Your task to perform on an android device: search for starred emails in the gmail app Image 0: 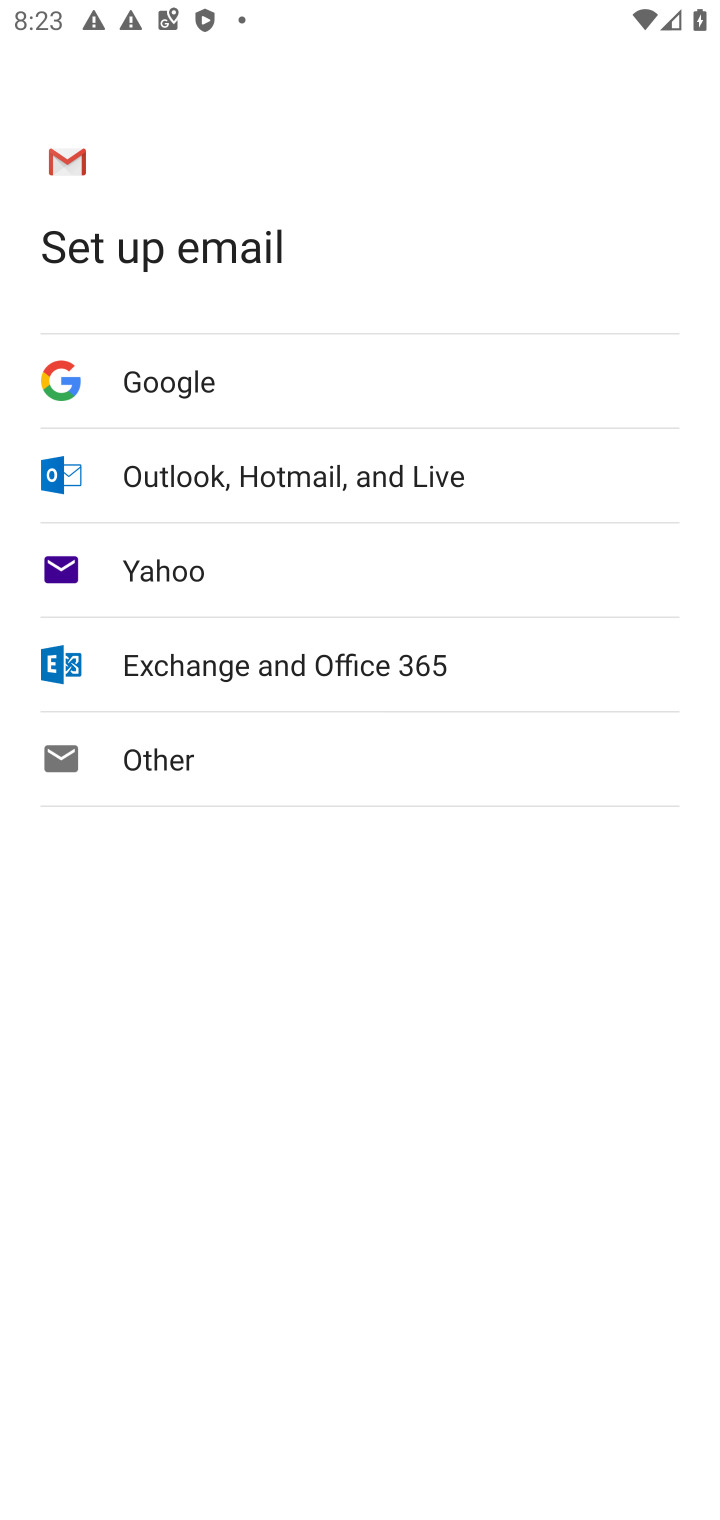
Step 0: press back button
Your task to perform on an android device: search for starred emails in the gmail app Image 1: 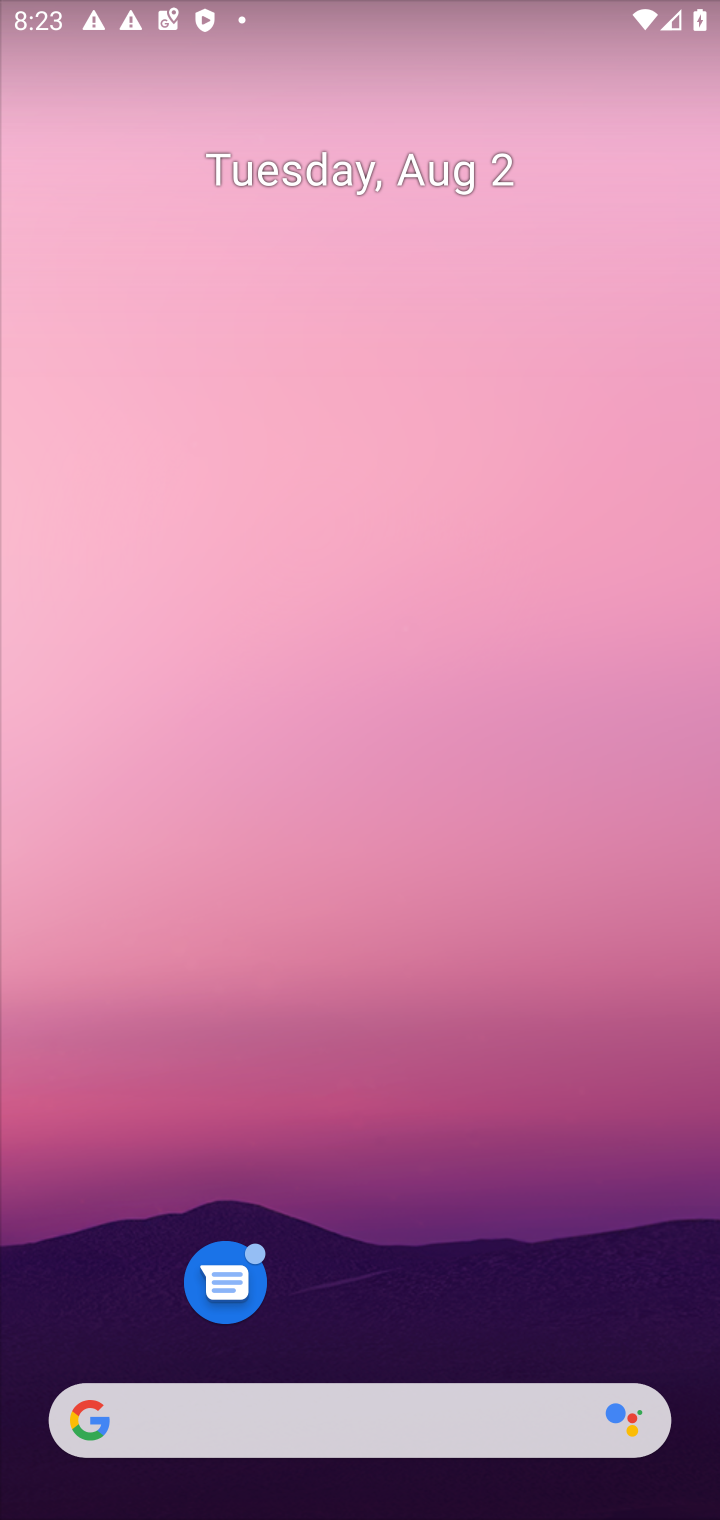
Step 1: drag from (431, 1335) to (150, 25)
Your task to perform on an android device: search for starred emails in the gmail app Image 2: 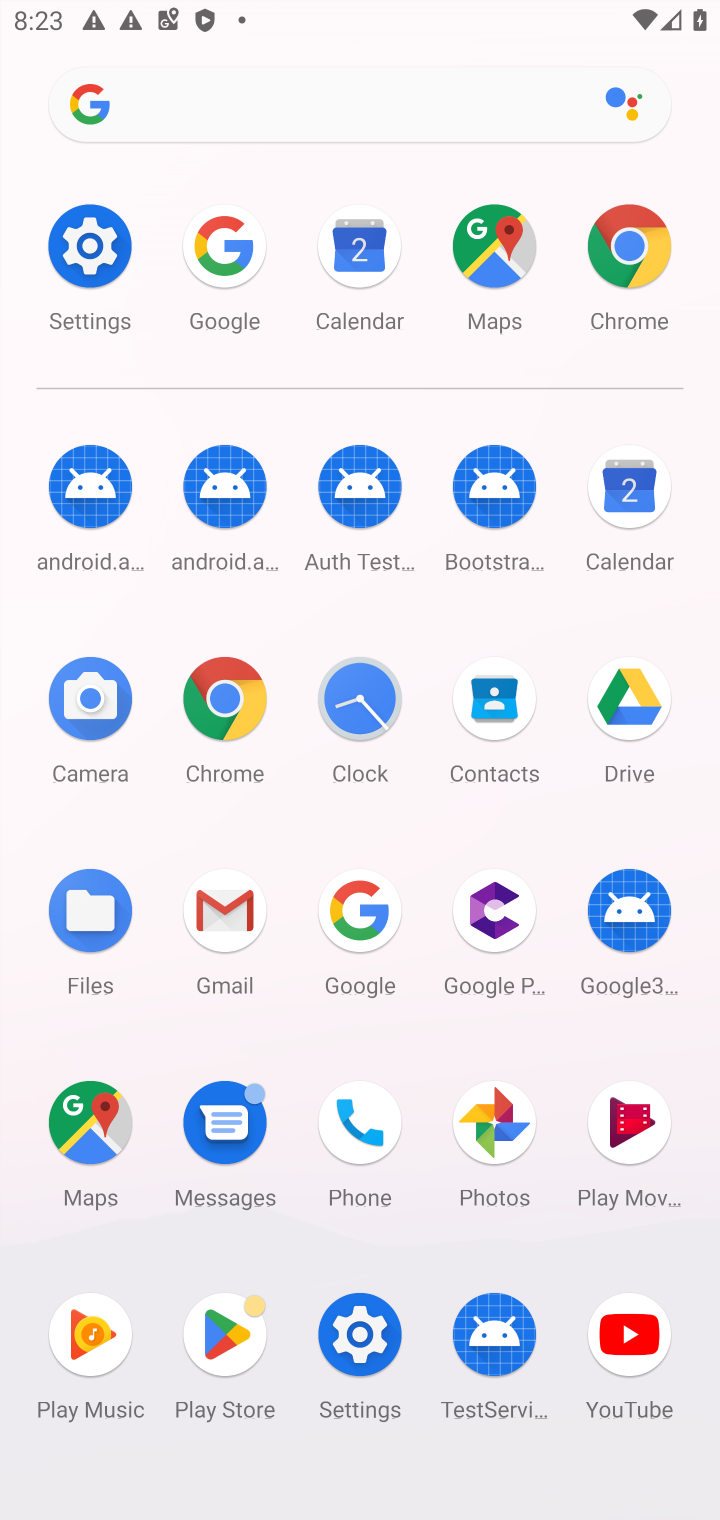
Step 2: click (177, 904)
Your task to perform on an android device: search for starred emails in the gmail app Image 3: 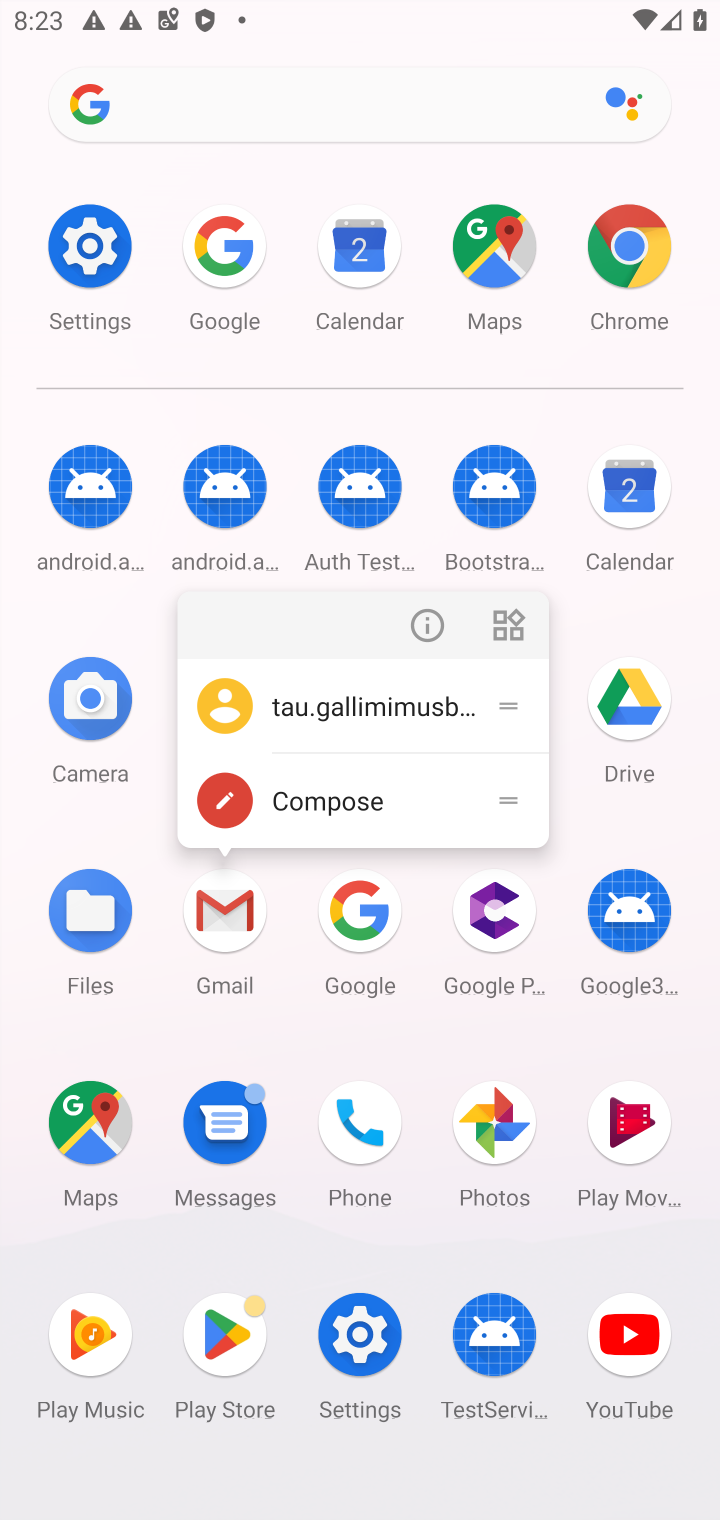
Step 3: click (199, 922)
Your task to perform on an android device: search for starred emails in the gmail app Image 4: 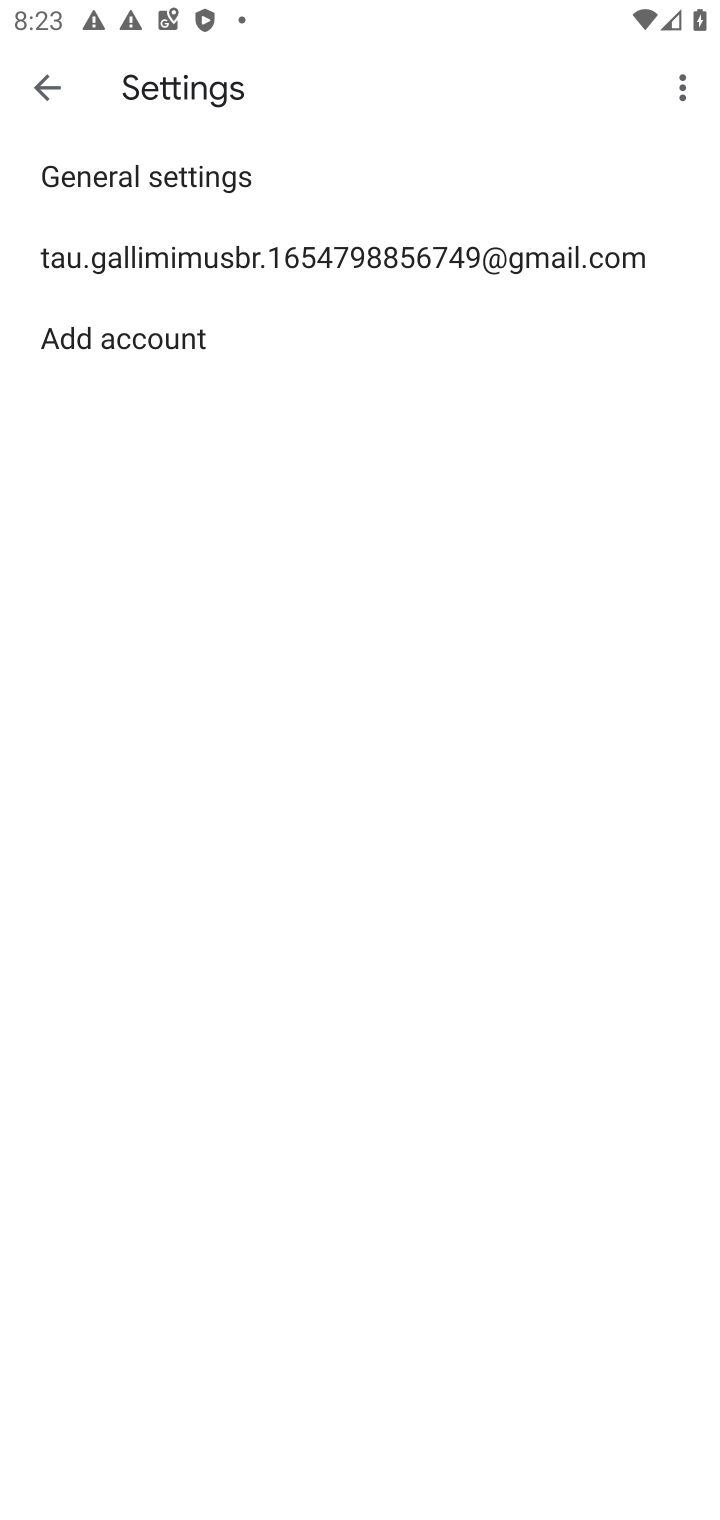
Step 4: click (45, 81)
Your task to perform on an android device: search for starred emails in the gmail app Image 5: 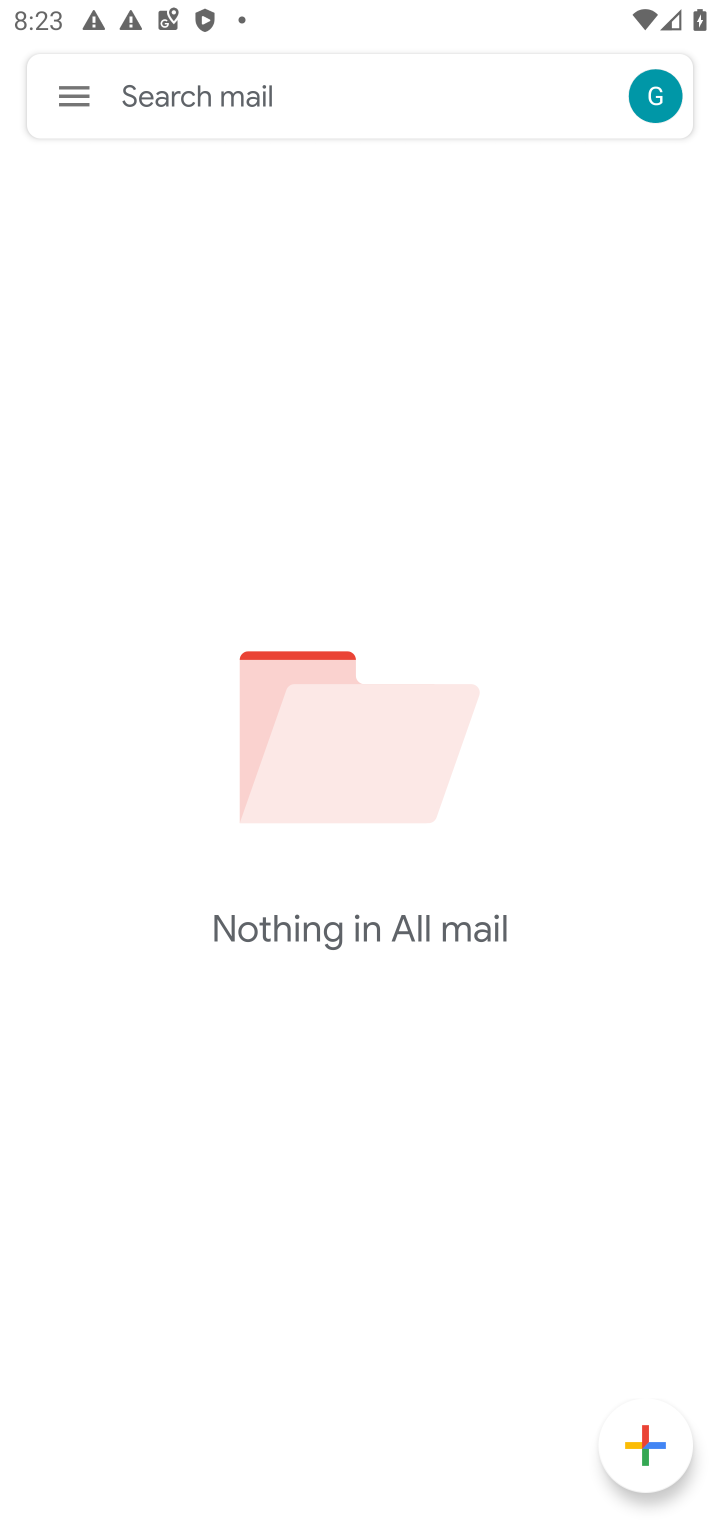
Step 5: click (39, 93)
Your task to perform on an android device: search for starred emails in the gmail app Image 6: 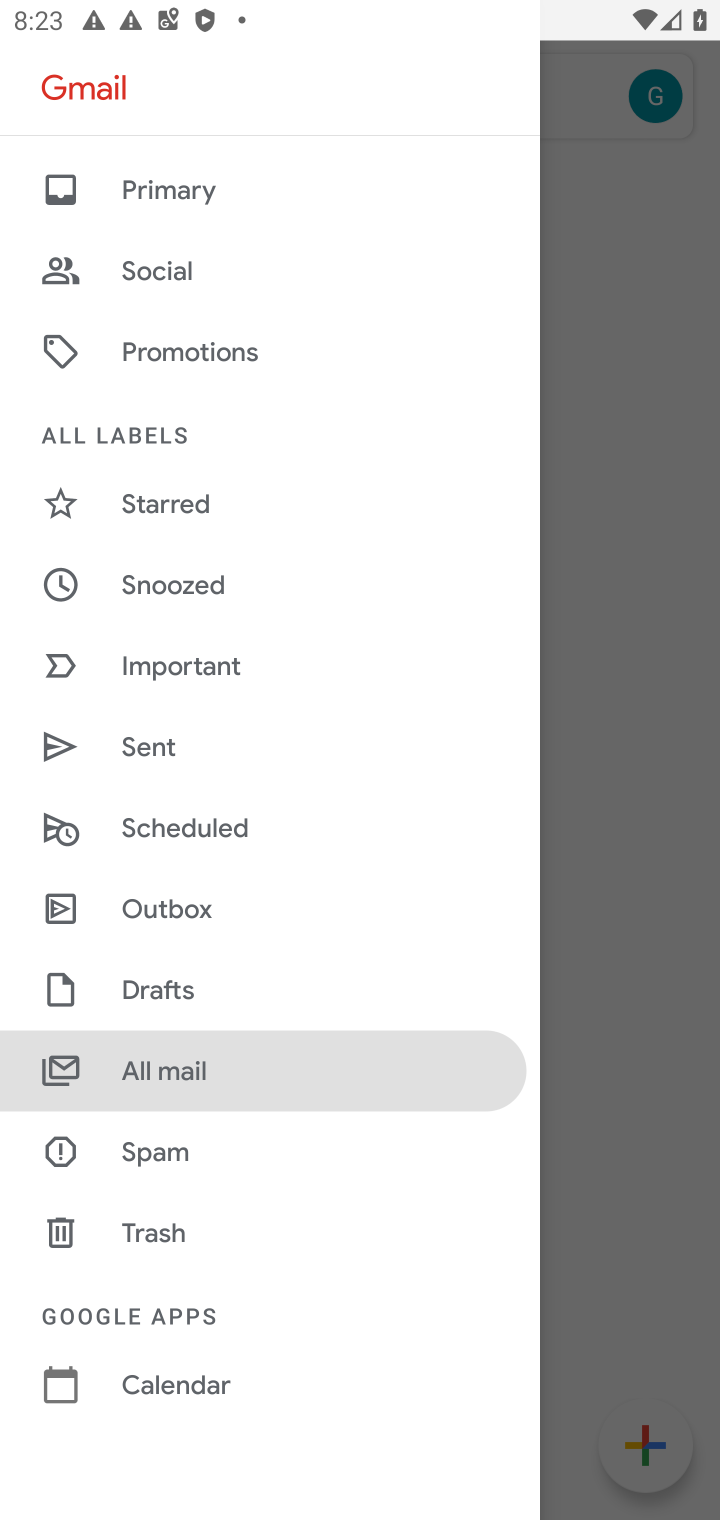
Step 6: click (116, 503)
Your task to perform on an android device: search for starred emails in the gmail app Image 7: 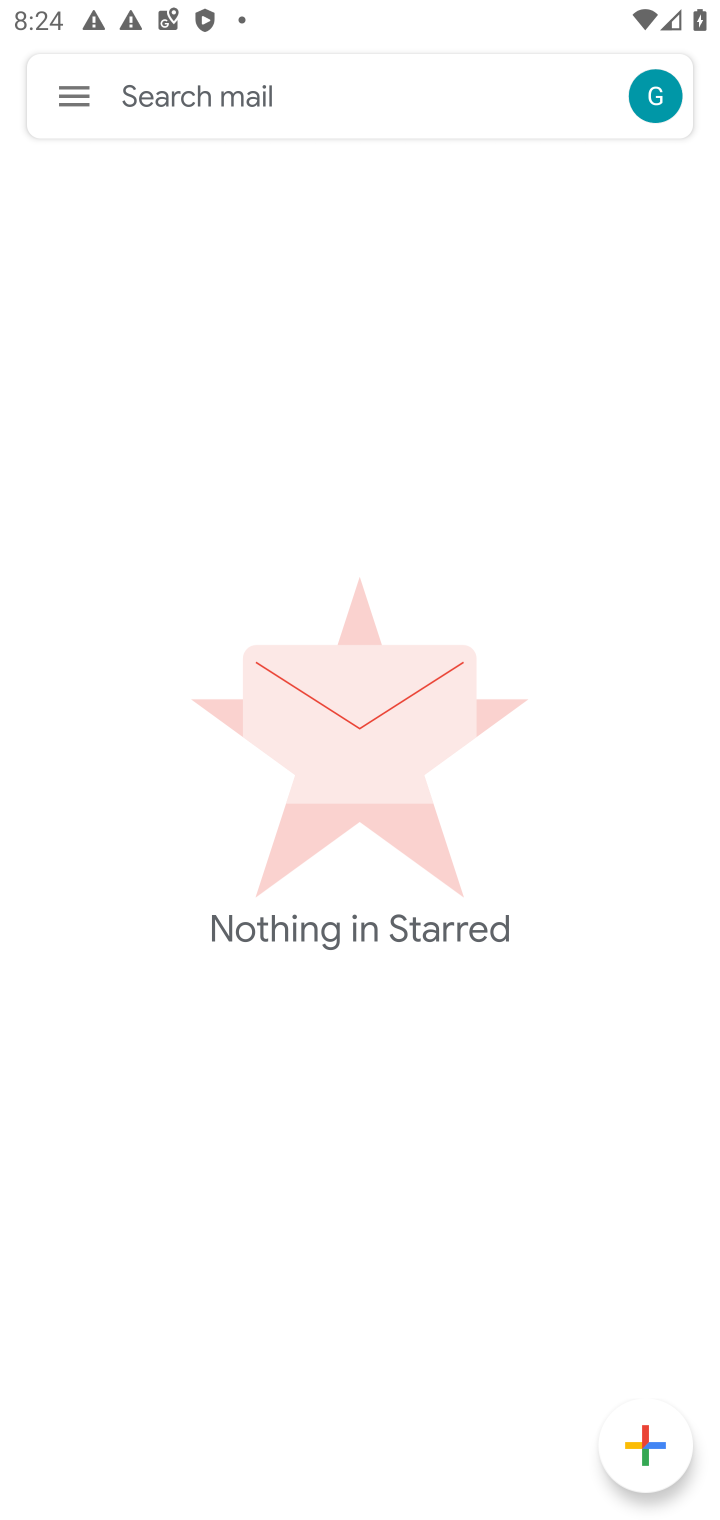
Step 7: task complete